Your task to perform on an android device: snooze an email in the gmail app Image 0: 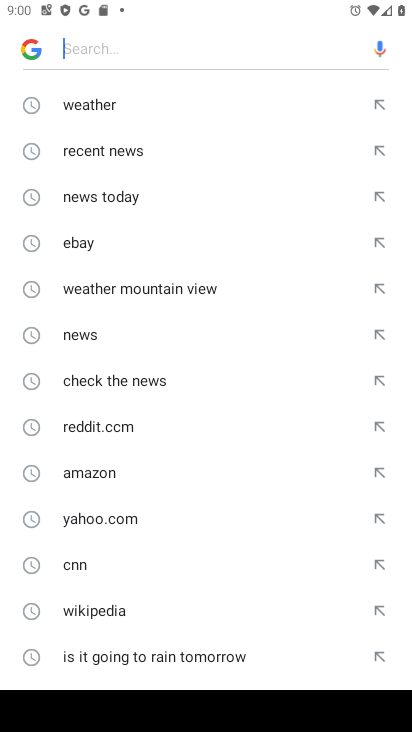
Step 0: press home button
Your task to perform on an android device: snooze an email in the gmail app Image 1: 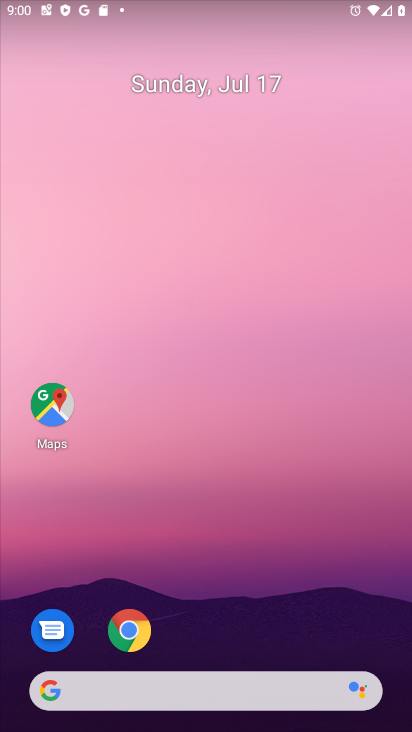
Step 1: drag from (191, 585) to (169, 100)
Your task to perform on an android device: snooze an email in the gmail app Image 2: 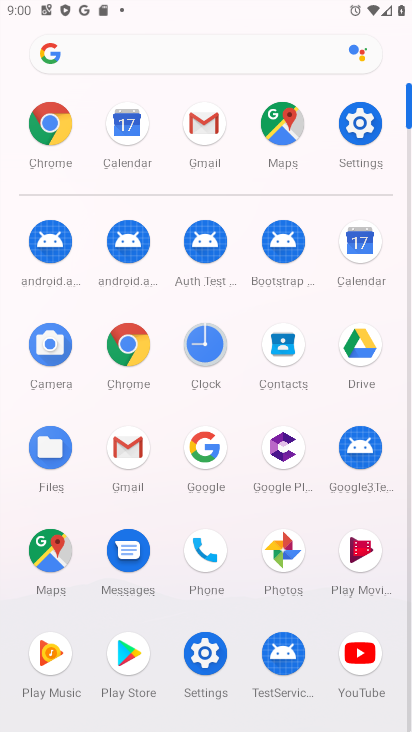
Step 2: click (202, 131)
Your task to perform on an android device: snooze an email in the gmail app Image 3: 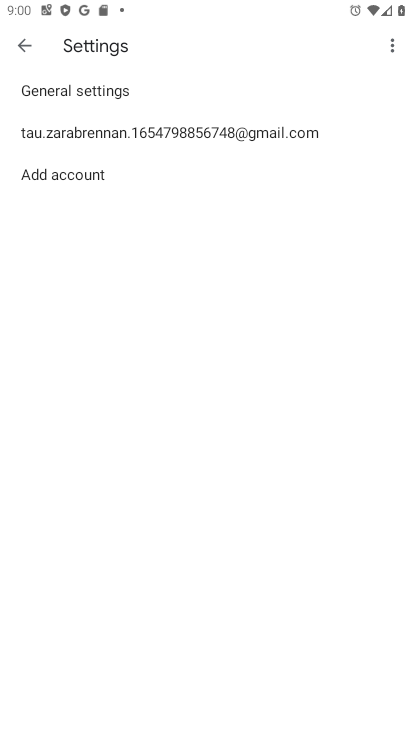
Step 3: click (26, 49)
Your task to perform on an android device: snooze an email in the gmail app Image 4: 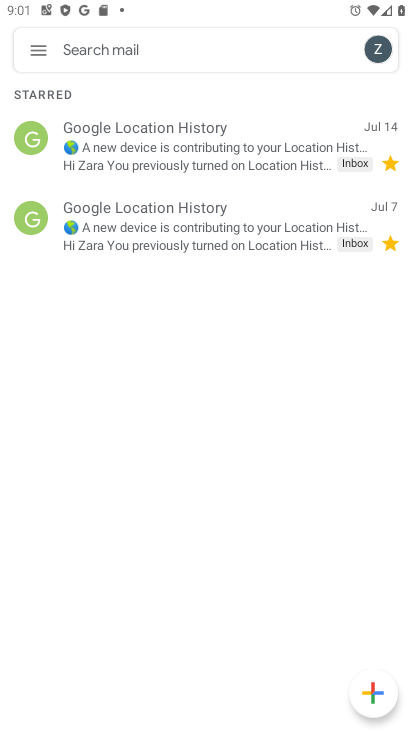
Step 4: click (227, 150)
Your task to perform on an android device: snooze an email in the gmail app Image 5: 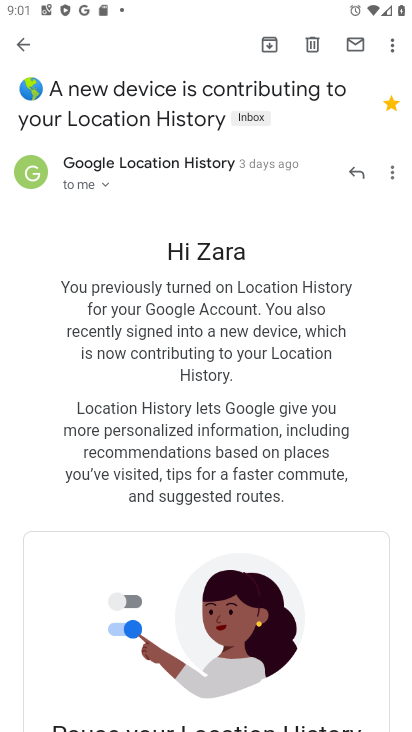
Step 5: click (392, 51)
Your task to perform on an android device: snooze an email in the gmail app Image 6: 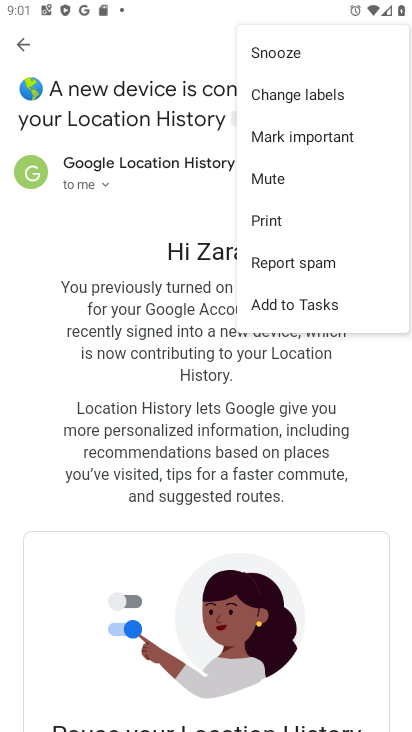
Step 6: click (313, 41)
Your task to perform on an android device: snooze an email in the gmail app Image 7: 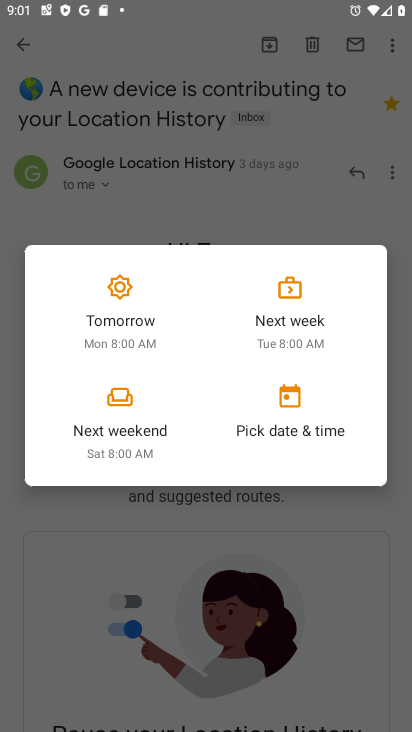
Step 7: click (116, 324)
Your task to perform on an android device: snooze an email in the gmail app Image 8: 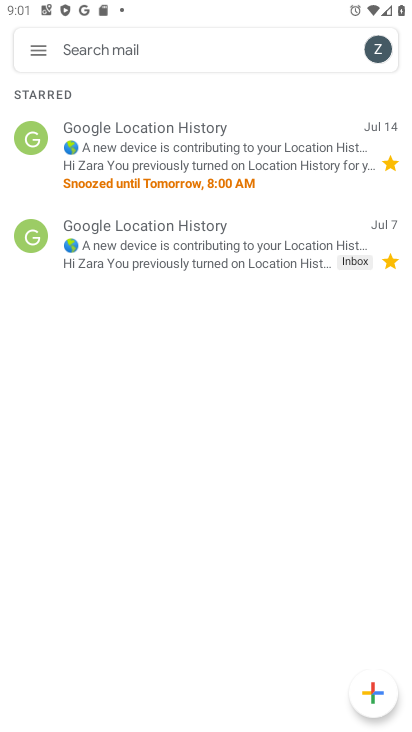
Step 8: task complete